Your task to perform on an android device: open the mobile data screen to see how much data has been used Image 0: 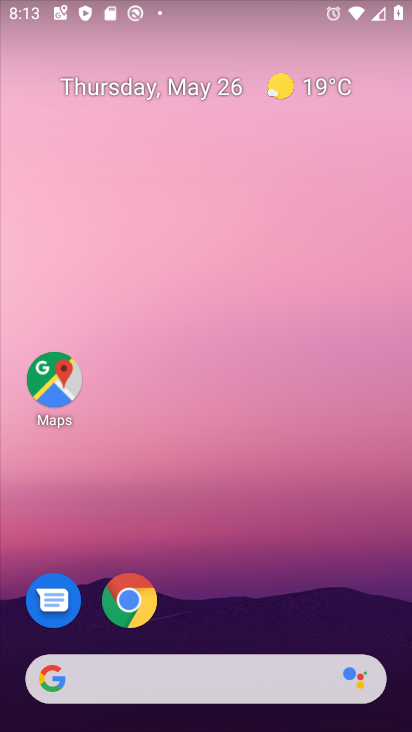
Step 0: press home button
Your task to perform on an android device: open the mobile data screen to see how much data has been used Image 1: 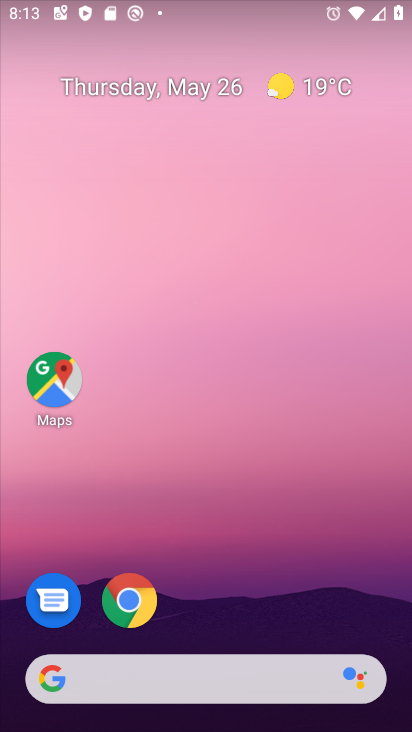
Step 1: drag from (266, 572) to (219, 290)
Your task to perform on an android device: open the mobile data screen to see how much data has been used Image 2: 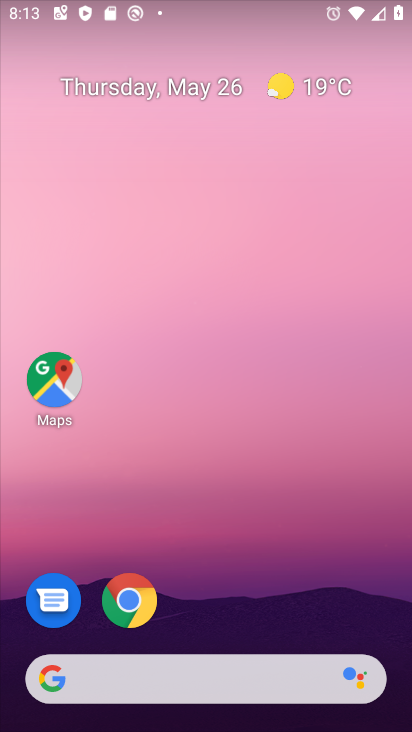
Step 2: drag from (350, 617) to (293, 62)
Your task to perform on an android device: open the mobile data screen to see how much data has been used Image 3: 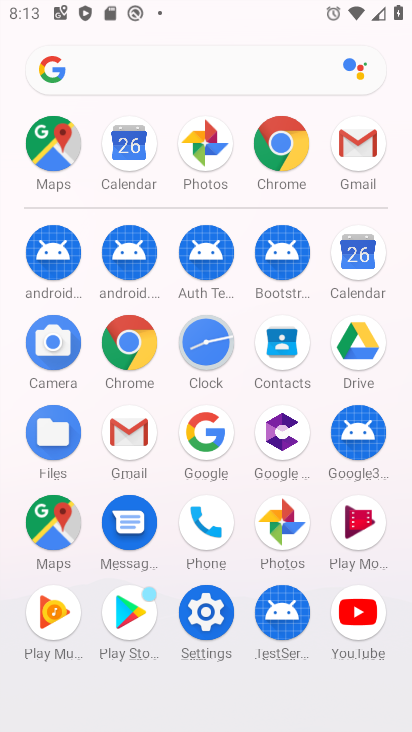
Step 3: click (203, 619)
Your task to perform on an android device: open the mobile data screen to see how much data has been used Image 4: 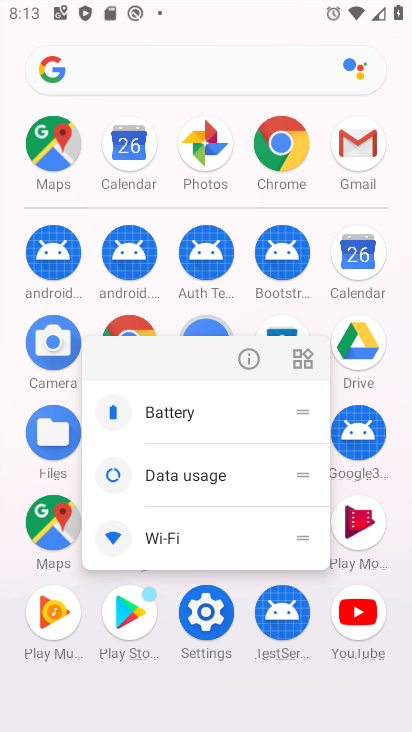
Step 4: click (211, 612)
Your task to perform on an android device: open the mobile data screen to see how much data has been used Image 5: 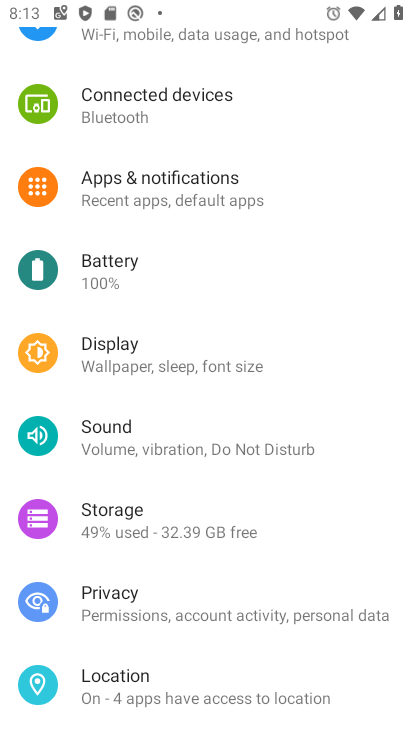
Step 5: drag from (262, 128) to (244, 324)
Your task to perform on an android device: open the mobile data screen to see how much data has been used Image 6: 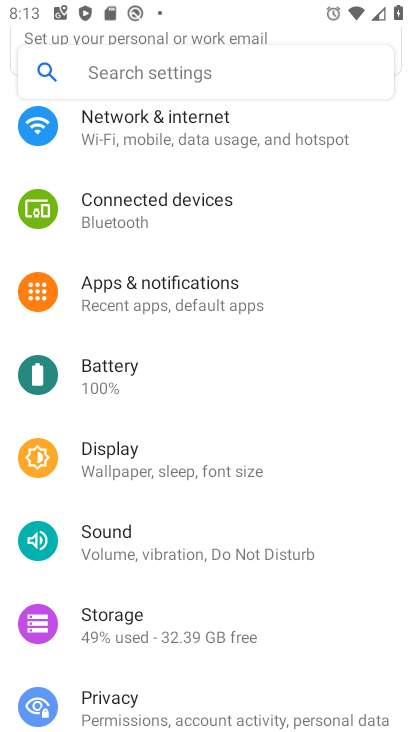
Step 6: click (163, 142)
Your task to perform on an android device: open the mobile data screen to see how much data has been used Image 7: 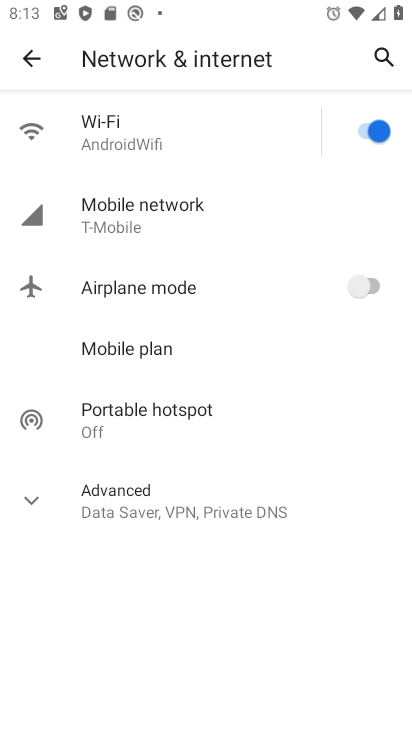
Step 7: click (127, 214)
Your task to perform on an android device: open the mobile data screen to see how much data has been used Image 8: 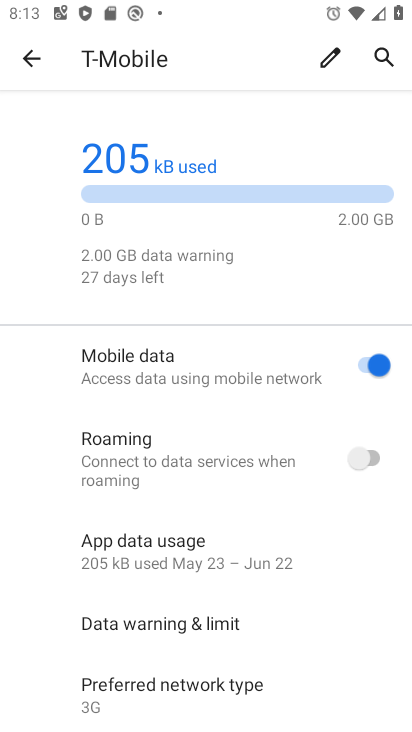
Step 8: click (120, 545)
Your task to perform on an android device: open the mobile data screen to see how much data has been used Image 9: 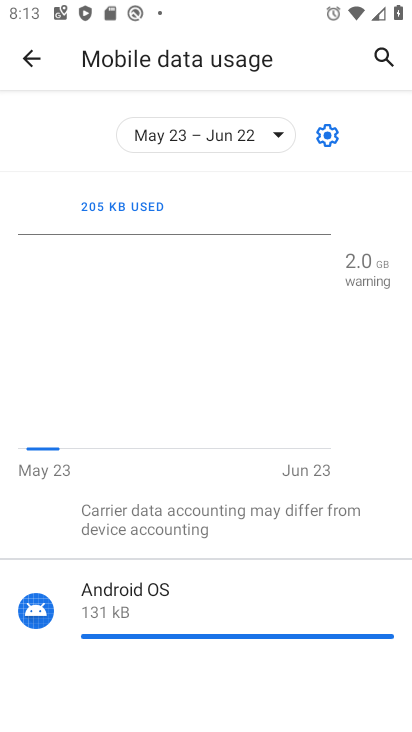
Step 9: task complete